Your task to perform on an android device: allow notifications from all sites in the chrome app Image 0: 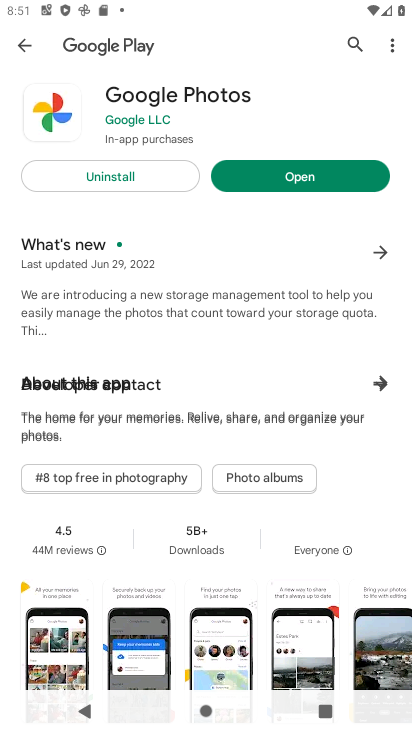
Step 0: press home button
Your task to perform on an android device: allow notifications from all sites in the chrome app Image 1: 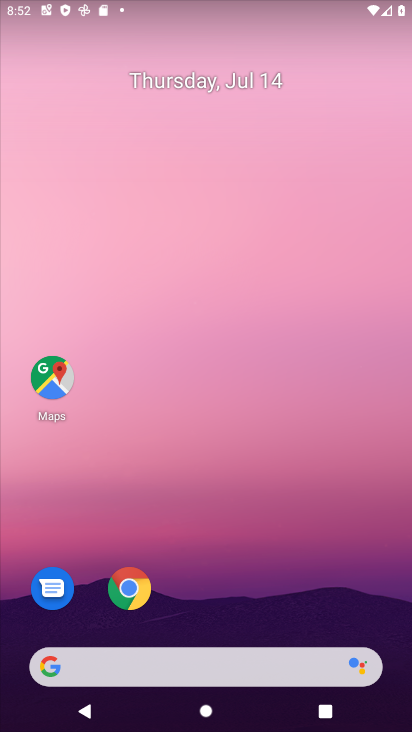
Step 1: click (129, 588)
Your task to perform on an android device: allow notifications from all sites in the chrome app Image 2: 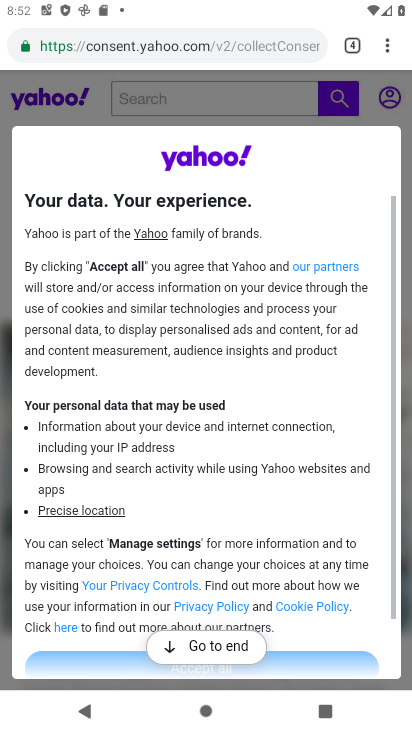
Step 2: click (386, 46)
Your task to perform on an android device: allow notifications from all sites in the chrome app Image 3: 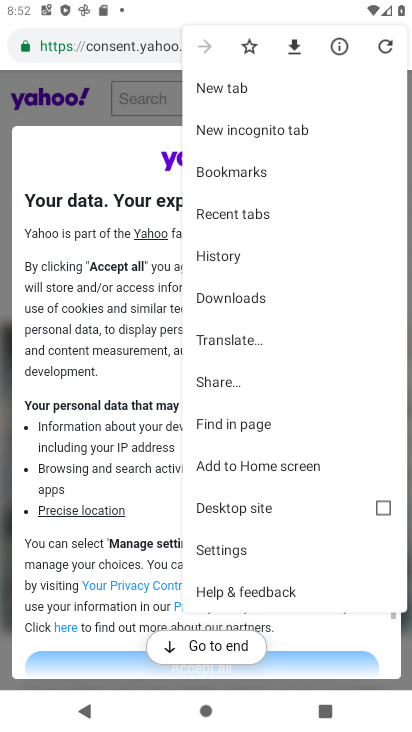
Step 3: click (234, 548)
Your task to perform on an android device: allow notifications from all sites in the chrome app Image 4: 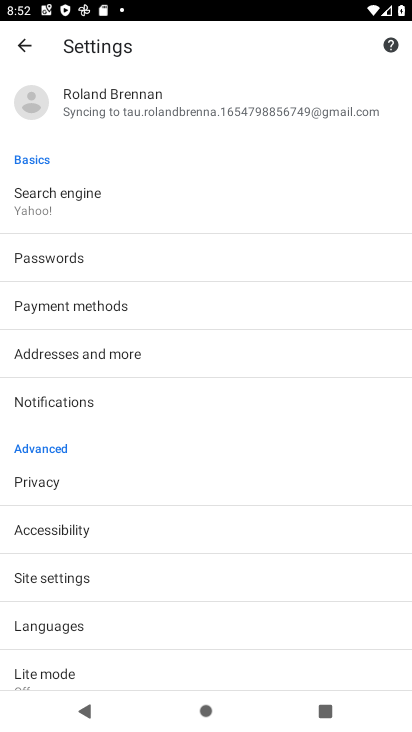
Step 4: click (55, 587)
Your task to perform on an android device: allow notifications from all sites in the chrome app Image 5: 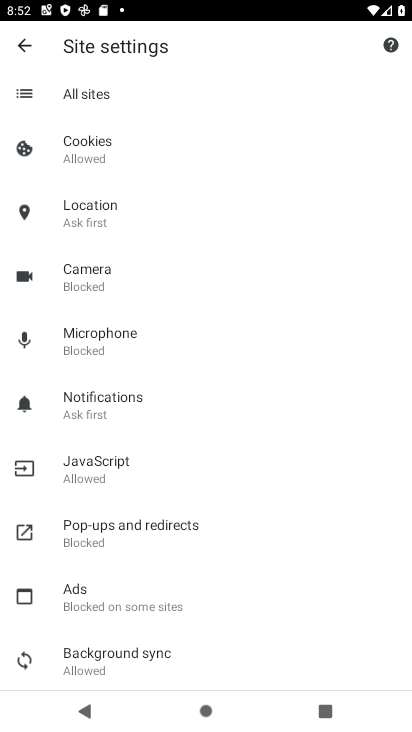
Step 5: drag from (187, 505) to (249, 518)
Your task to perform on an android device: allow notifications from all sites in the chrome app Image 6: 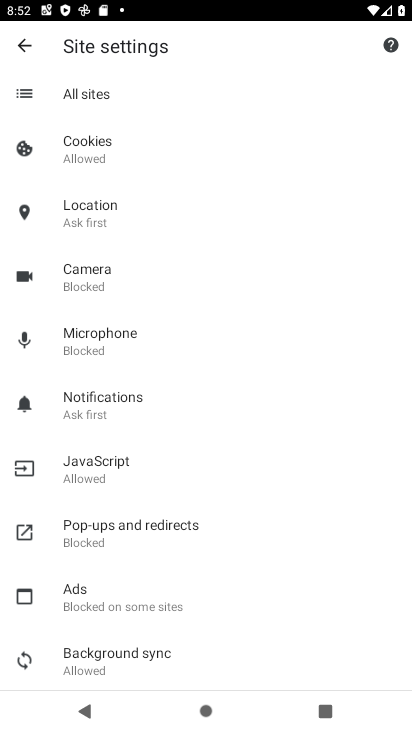
Step 6: click (122, 408)
Your task to perform on an android device: allow notifications from all sites in the chrome app Image 7: 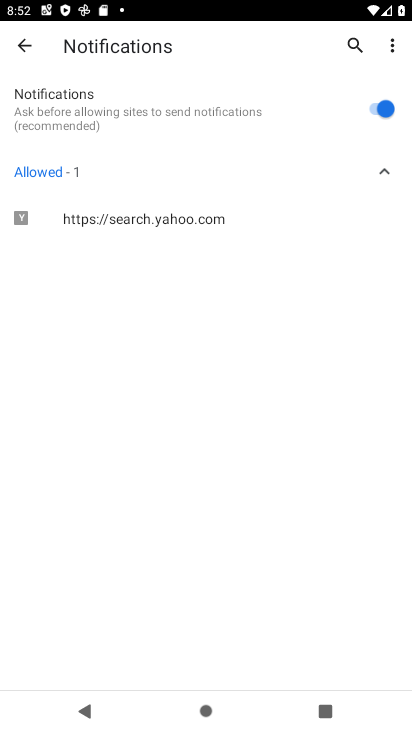
Step 7: task complete